Your task to perform on an android device: Open Chrome and go to settings Image 0: 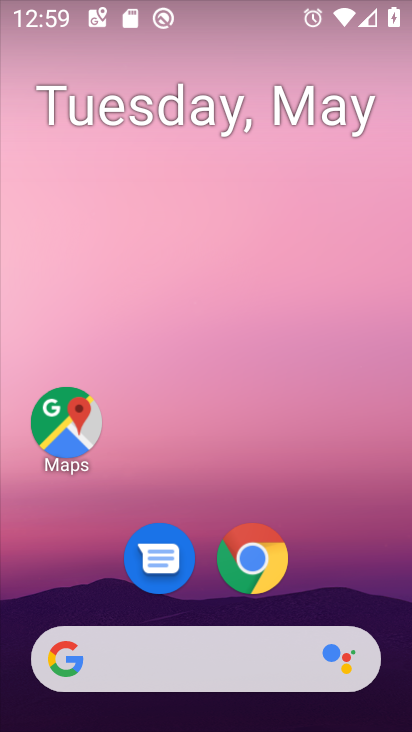
Step 0: click (274, 570)
Your task to perform on an android device: Open Chrome and go to settings Image 1: 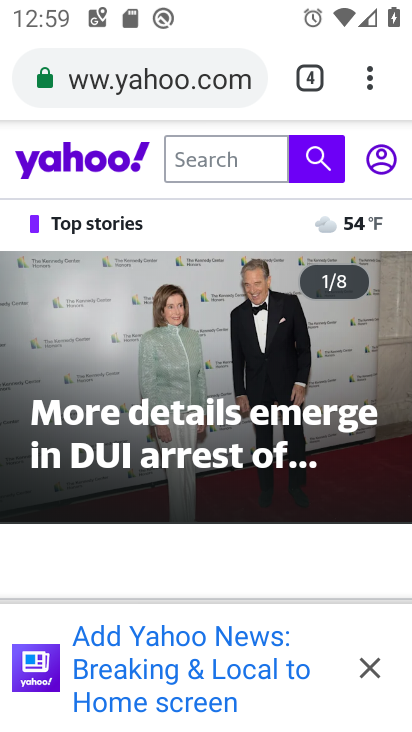
Step 1: click (373, 84)
Your task to perform on an android device: Open Chrome and go to settings Image 2: 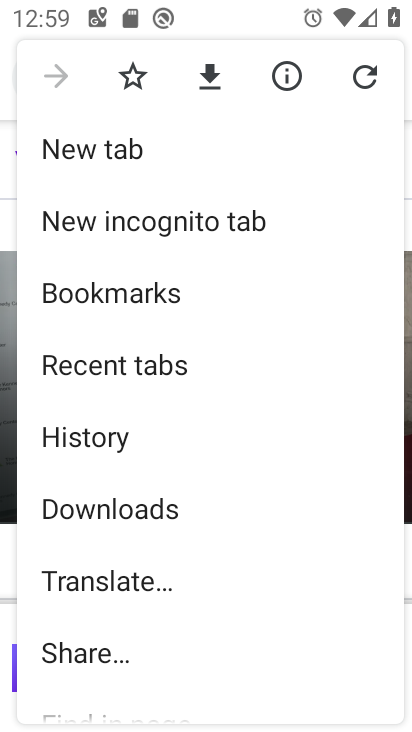
Step 2: drag from (199, 669) to (190, 297)
Your task to perform on an android device: Open Chrome and go to settings Image 3: 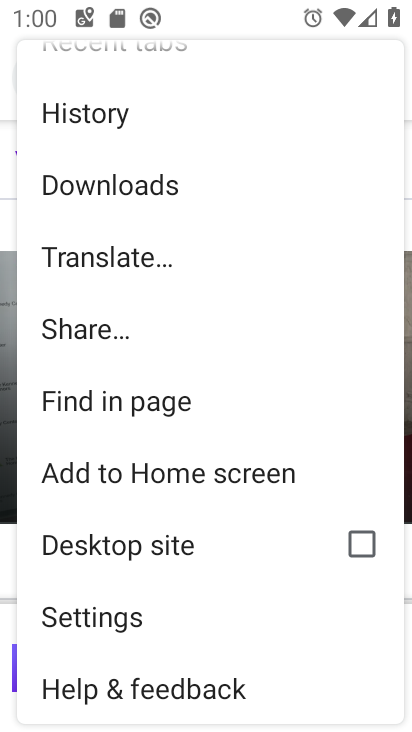
Step 3: click (181, 612)
Your task to perform on an android device: Open Chrome and go to settings Image 4: 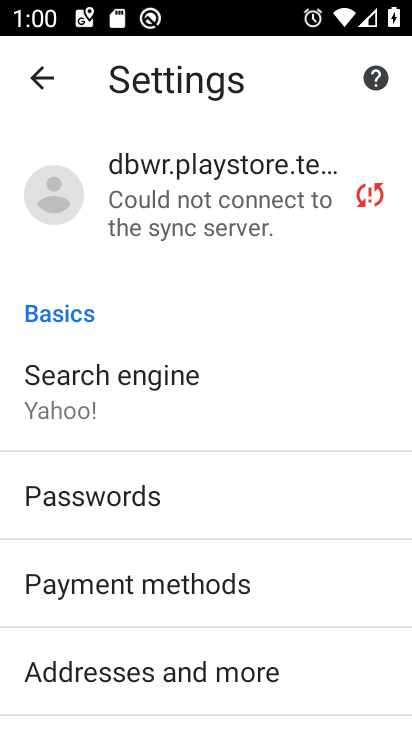
Step 4: task complete